Your task to perform on an android device: uninstall "Firefox Browser" Image 0: 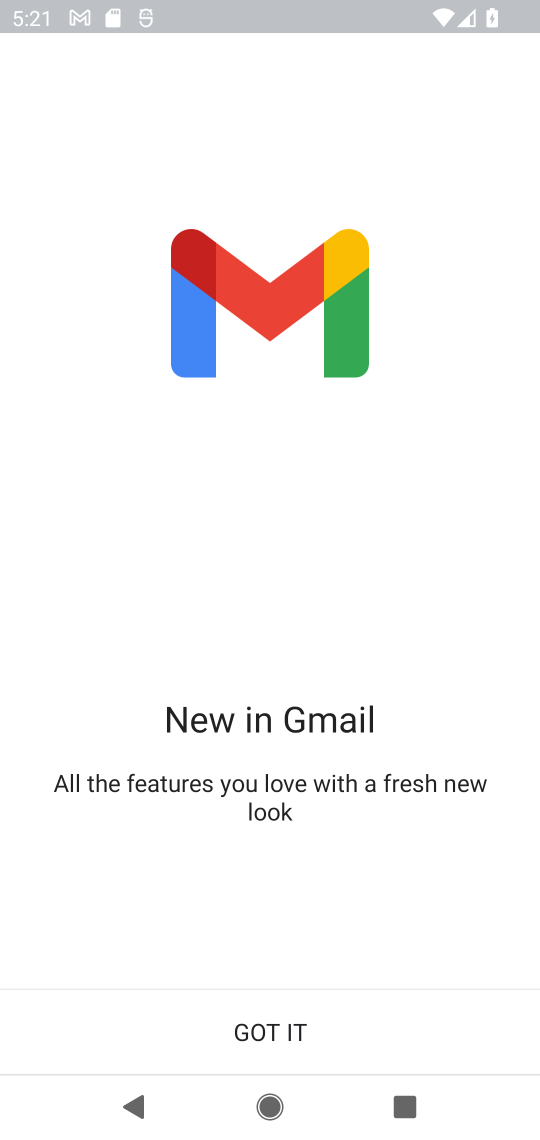
Step 0: press home button
Your task to perform on an android device: uninstall "Firefox Browser" Image 1: 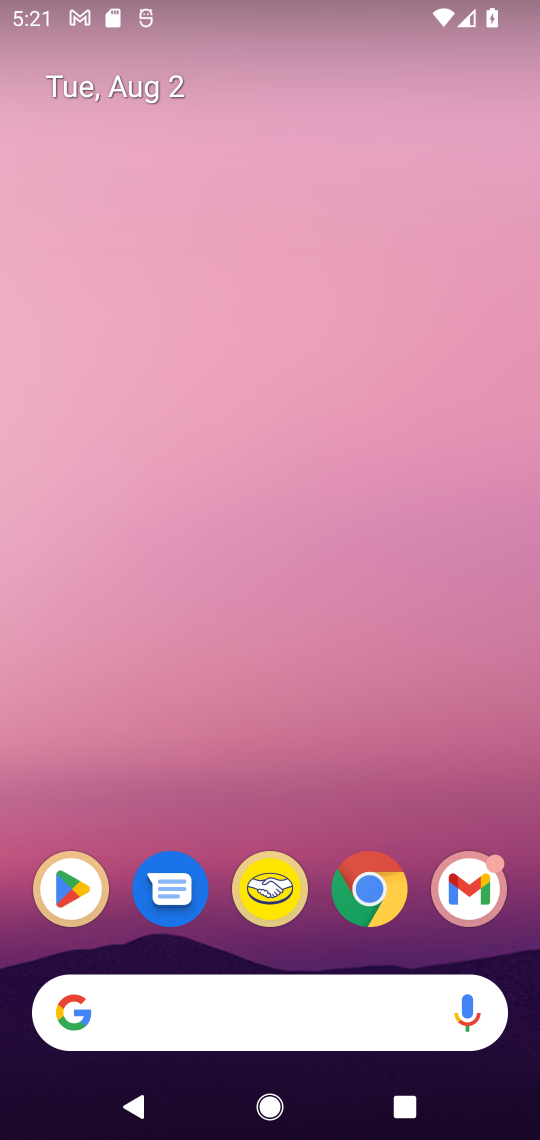
Step 1: drag from (402, 775) to (391, 133)
Your task to perform on an android device: uninstall "Firefox Browser" Image 2: 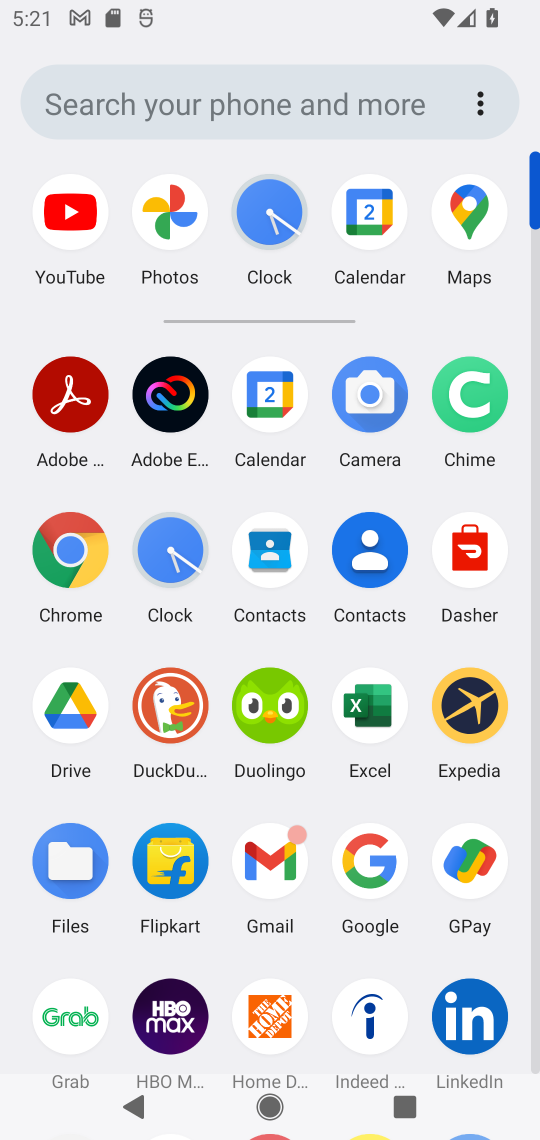
Step 2: drag from (505, 962) to (503, 477)
Your task to perform on an android device: uninstall "Firefox Browser" Image 3: 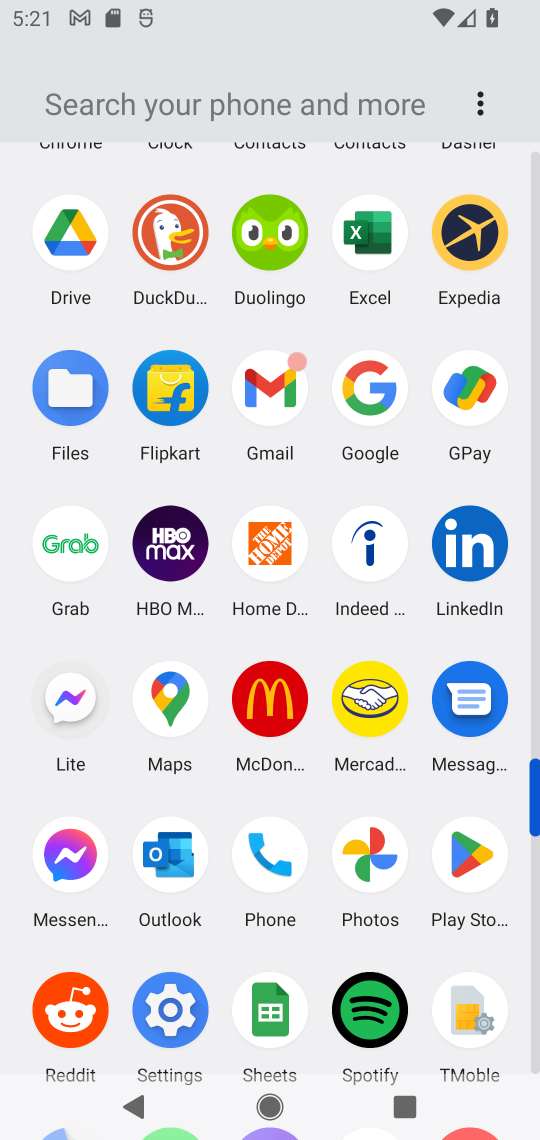
Step 3: click (471, 856)
Your task to perform on an android device: uninstall "Firefox Browser" Image 4: 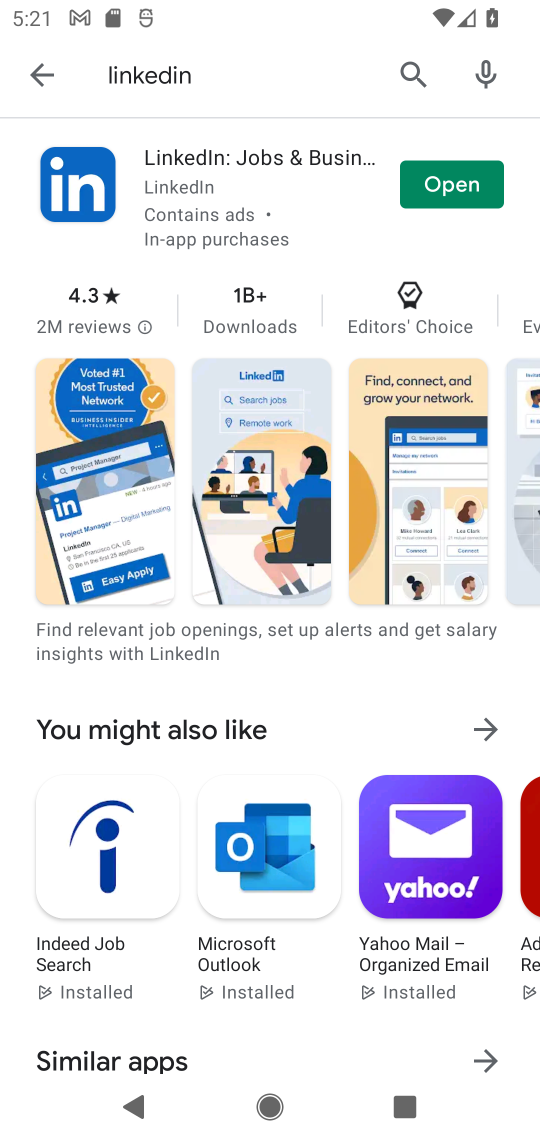
Step 4: click (414, 76)
Your task to perform on an android device: uninstall "Firefox Browser" Image 5: 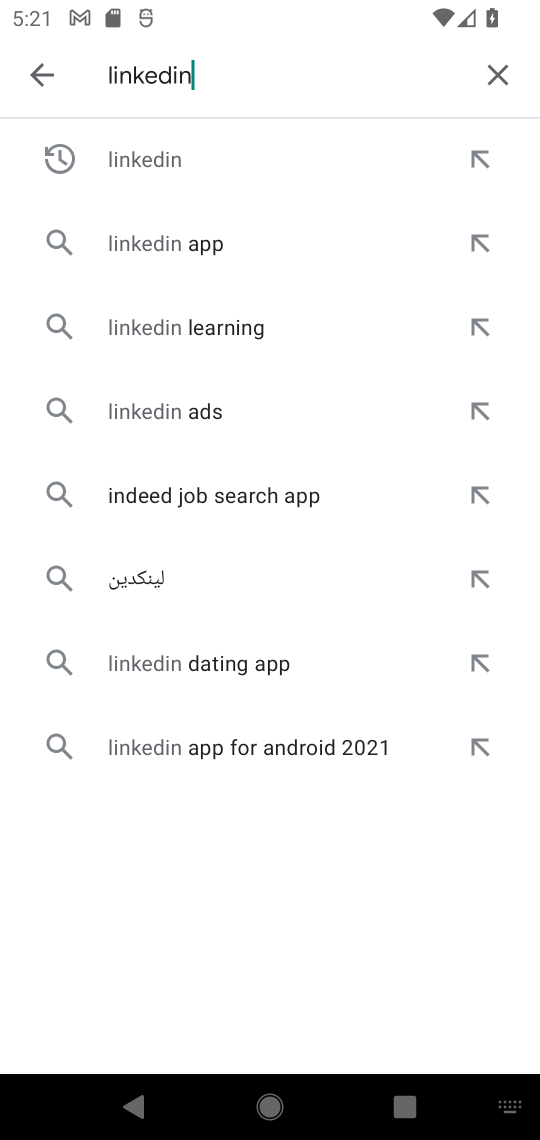
Step 5: click (506, 71)
Your task to perform on an android device: uninstall "Firefox Browser" Image 6: 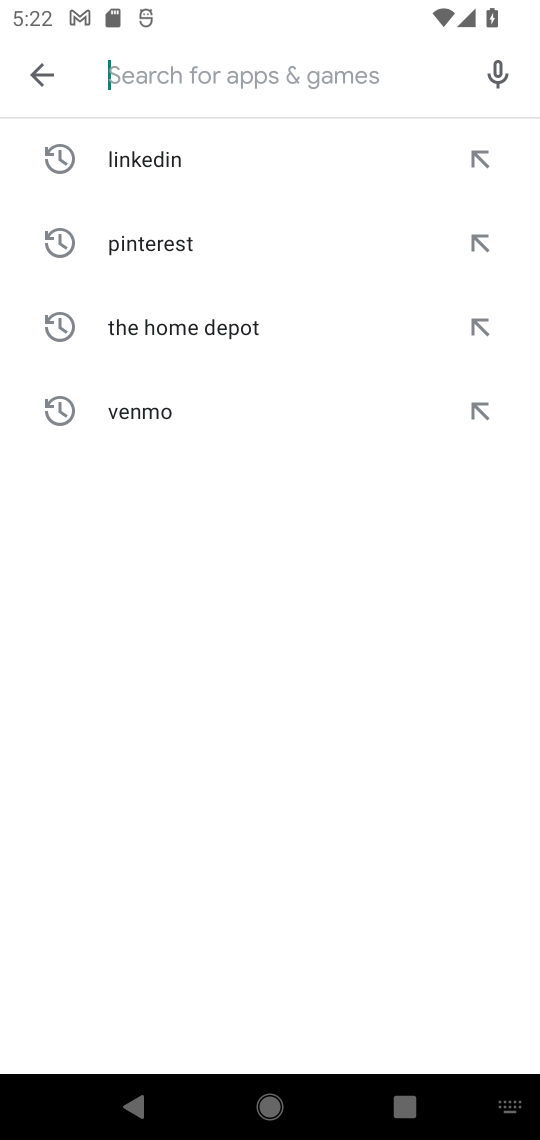
Step 6: type "firefox browser"
Your task to perform on an android device: uninstall "Firefox Browser" Image 7: 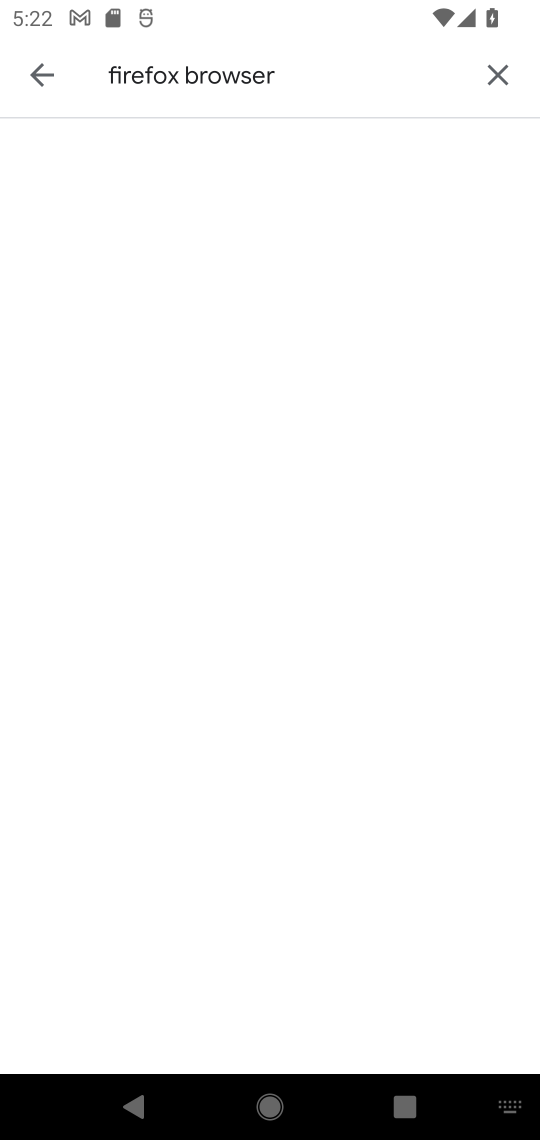
Step 7: task complete